Your task to perform on an android device: open wifi settings Image 0: 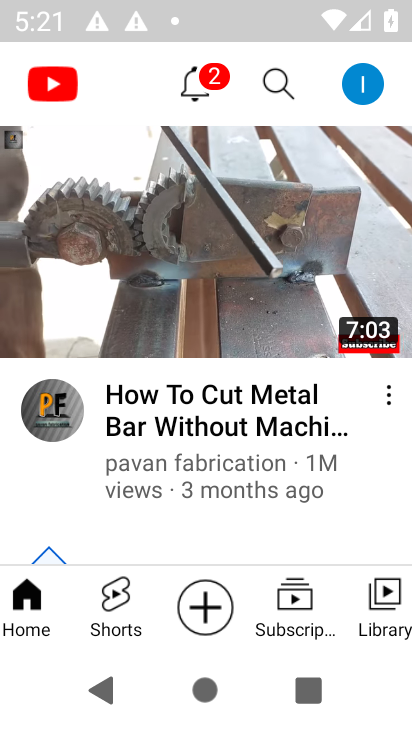
Step 0: press home button
Your task to perform on an android device: open wifi settings Image 1: 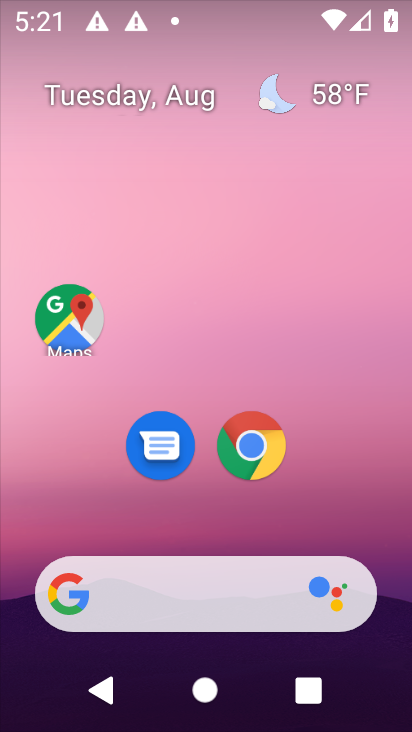
Step 1: drag from (196, 141) to (200, 106)
Your task to perform on an android device: open wifi settings Image 2: 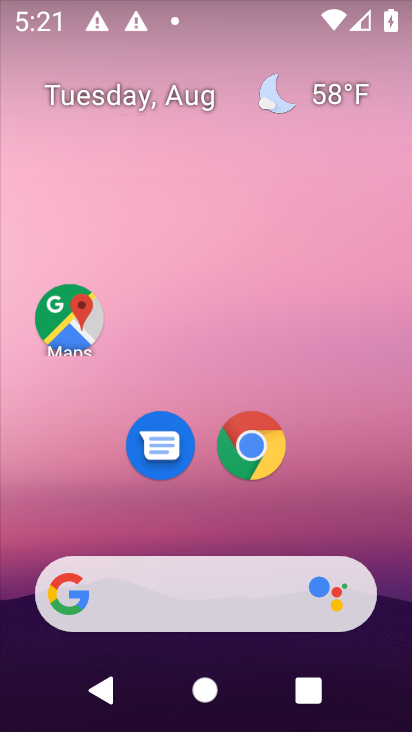
Step 2: drag from (205, 500) to (205, 56)
Your task to perform on an android device: open wifi settings Image 3: 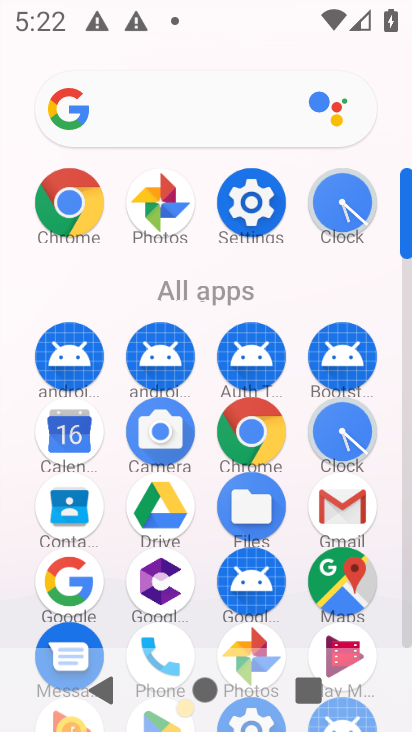
Step 3: click (245, 201)
Your task to perform on an android device: open wifi settings Image 4: 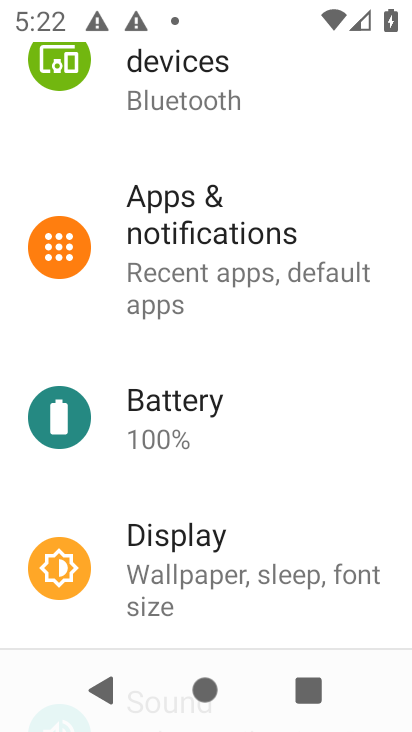
Step 4: drag from (230, 313) to (234, 693)
Your task to perform on an android device: open wifi settings Image 5: 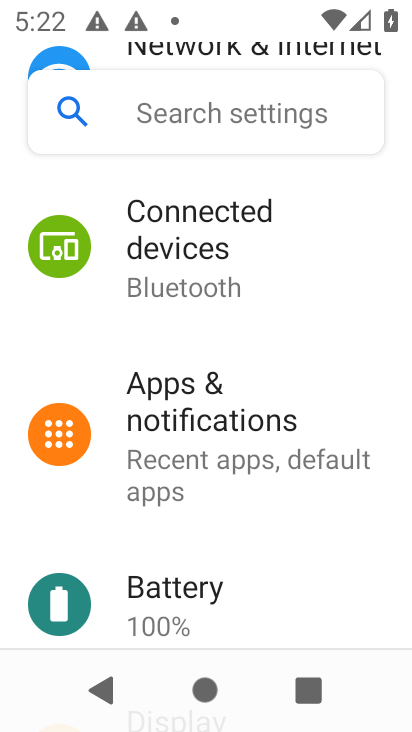
Step 5: drag from (275, 317) to (254, 676)
Your task to perform on an android device: open wifi settings Image 6: 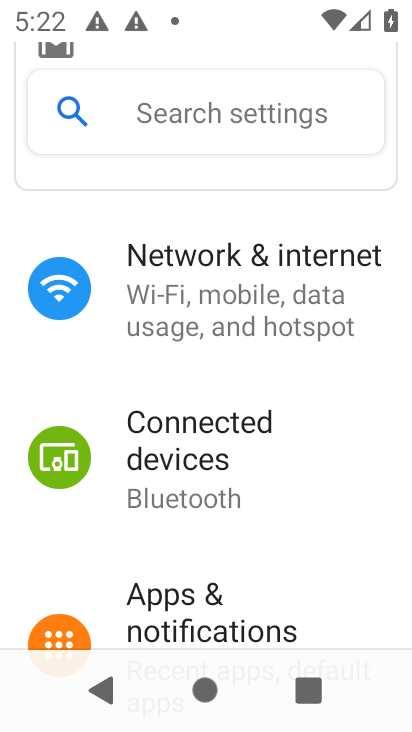
Step 6: click (188, 287)
Your task to perform on an android device: open wifi settings Image 7: 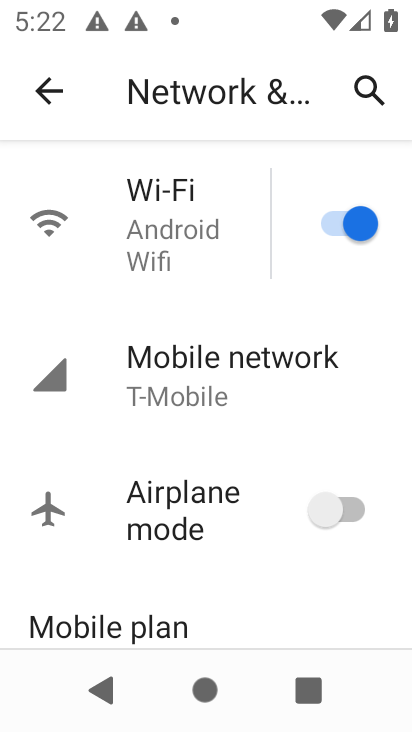
Step 7: click (158, 229)
Your task to perform on an android device: open wifi settings Image 8: 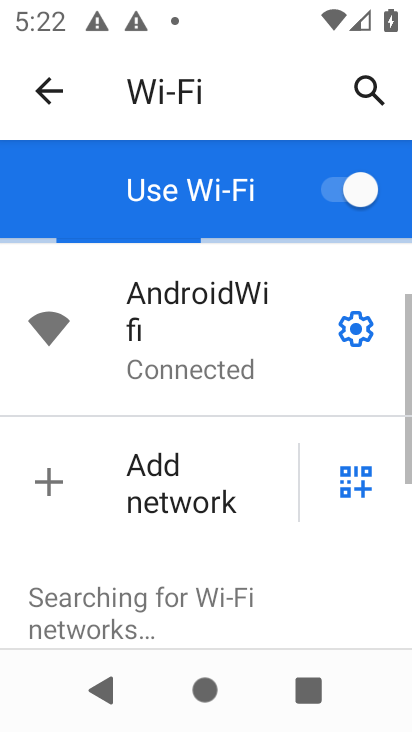
Step 8: task complete